Your task to perform on an android device: turn on javascript in the chrome app Image 0: 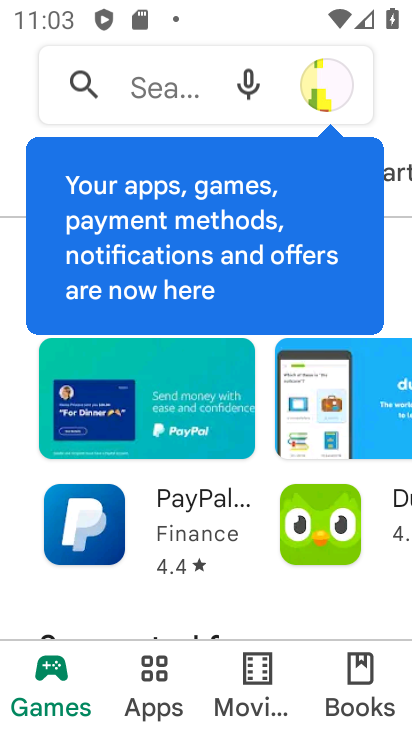
Step 0: press home button
Your task to perform on an android device: turn on javascript in the chrome app Image 1: 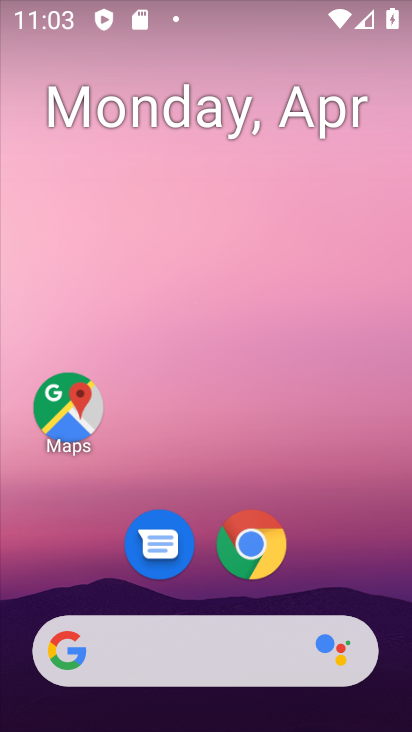
Step 1: click (251, 550)
Your task to perform on an android device: turn on javascript in the chrome app Image 2: 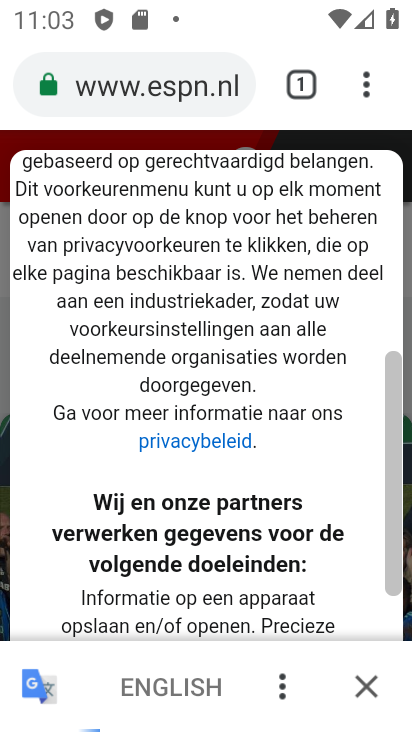
Step 2: click (367, 95)
Your task to perform on an android device: turn on javascript in the chrome app Image 3: 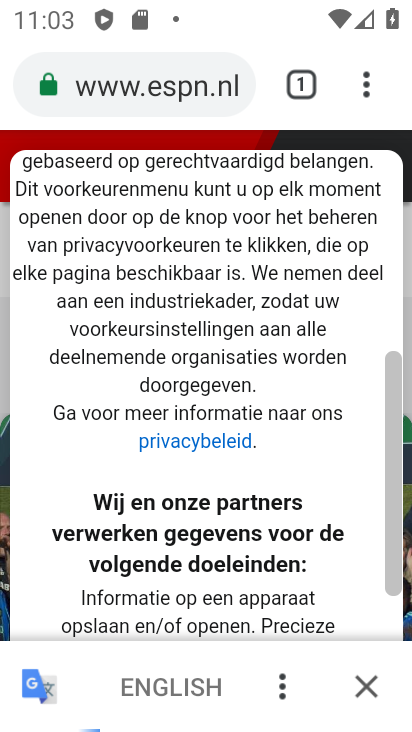
Step 3: click (371, 87)
Your task to perform on an android device: turn on javascript in the chrome app Image 4: 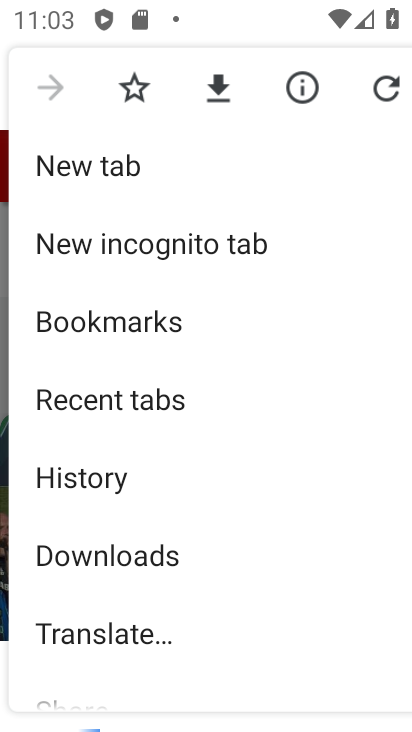
Step 4: drag from (331, 522) to (276, 162)
Your task to perform on an android device: turn on javascript in the chrome app Image 5: 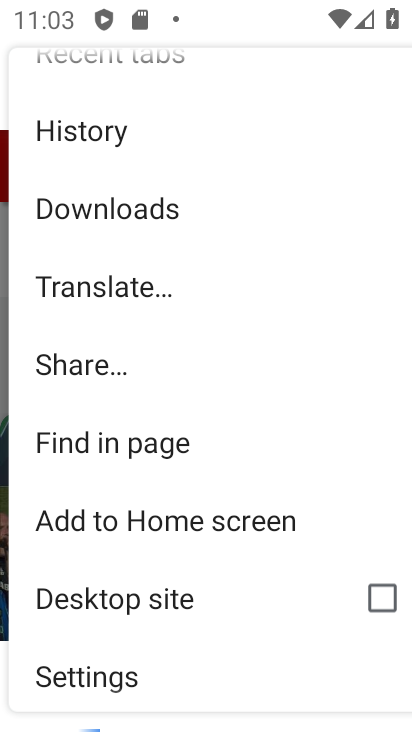
Step 5: drag from (265, 550) to (210, 177)
Your task to perform on an android device: turn on javascript in the chrome app Image 6: 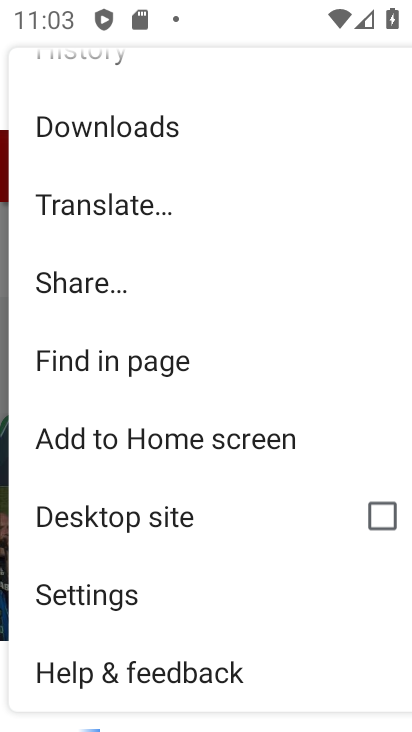
Step 6: click (103, 598)
Your task to perform on an android device: turn on javascript in the chrome app Image 7: 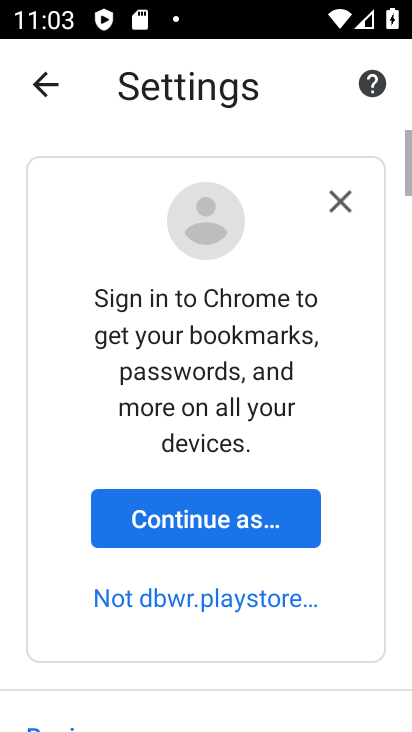
Step 7: drag from (288, 619) to (260, 191)
Your task to perform on an android device: turn on javascript in the chrome app Image 8: 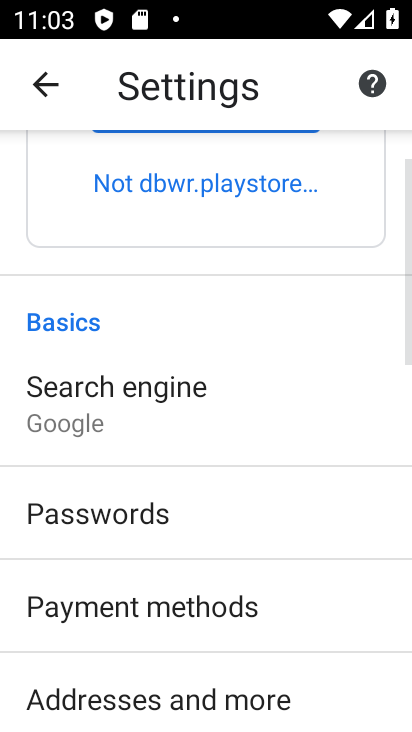
Step 8: drag from (249, 544) to (209, 150)
Your task to perform on an android device: turn on javascript in the chrome app Image 9: 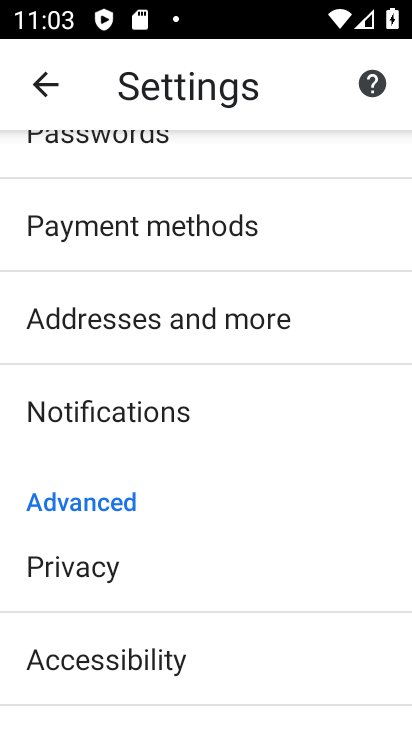
Step 9: drag from (206, 522) to (174, 198)
Your task to perform on an android device: turn on javascript in the chrome app Image 10: 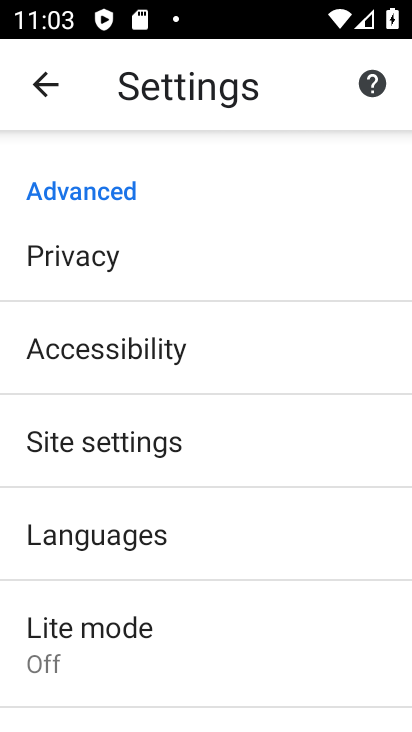
Step 10: click (126, 442)
Your task to perform on an android device: turn on javascript in the chrome app Image 11: 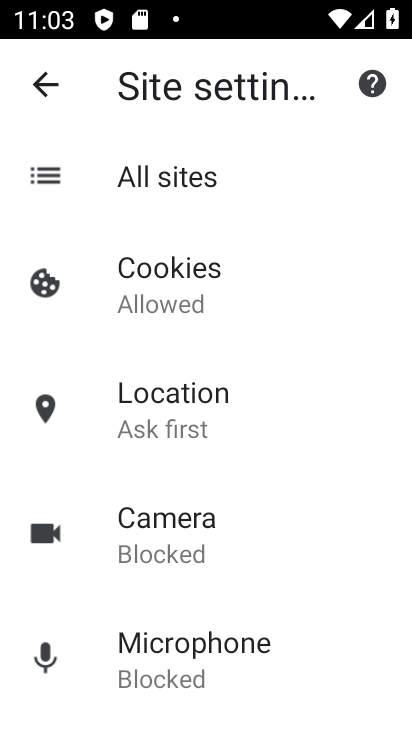
Step 11: drag from (346, 573) to (311, 252)
Your task to perform on an android device: turn on javascript in the chrome app Image 12: 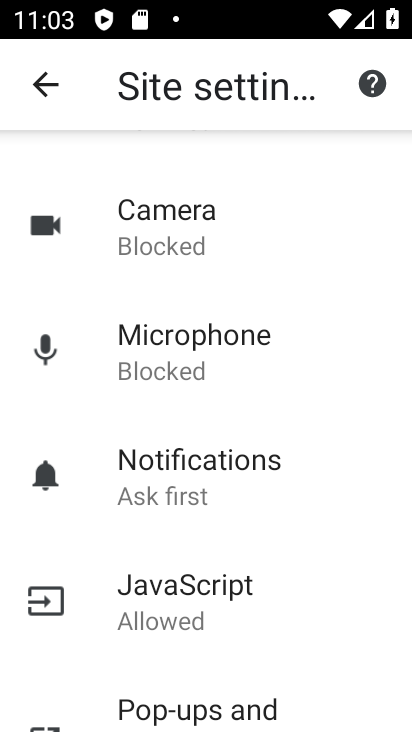
Step 12: click (170, 605)
Your task to perform on an android device: turn on javascript in the chrome app Image 13: 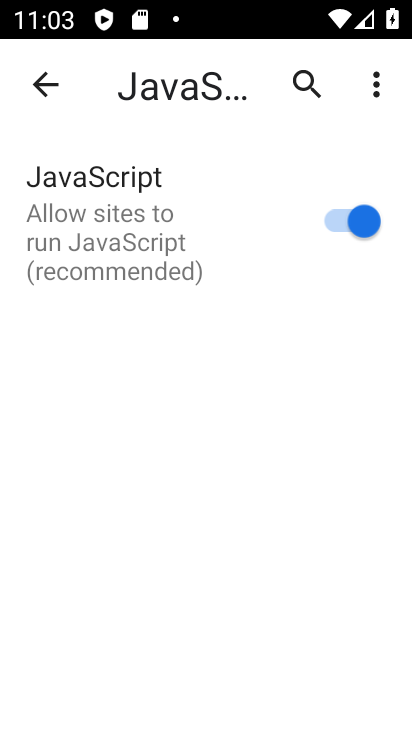
Step 13: task complete